Your task to perform on an android device: Open sound settings Image 0: 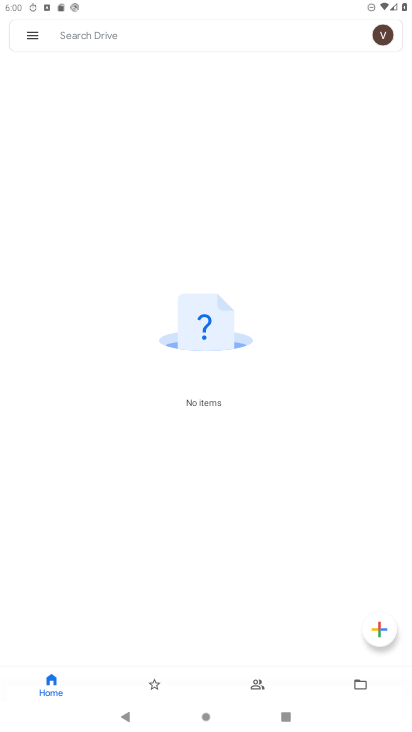
Step 0: press home button
Your task to perform on an android device: Open sound settings Image 1: 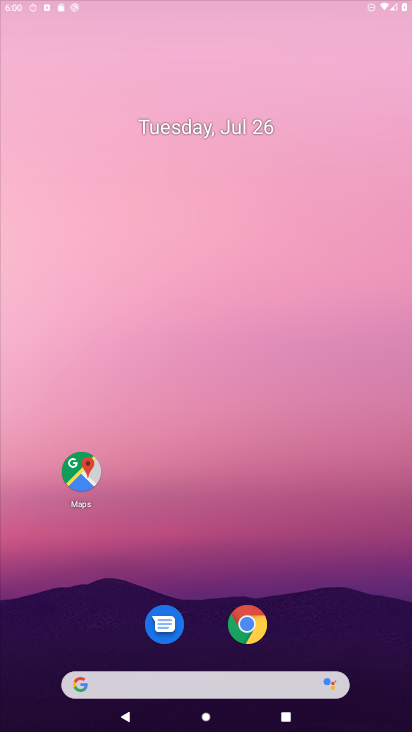
Step 1: drag from (248, 647) to (324, 27)
Your task to perform on an android device: Open sound settings Image 2: 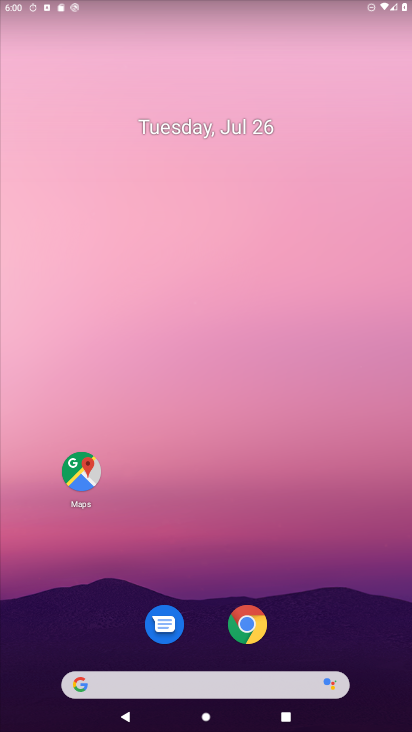
Step 2: drag from (233, 696) to (289, 21)
Your task to perform on an android device: Open sound settings Image 3: 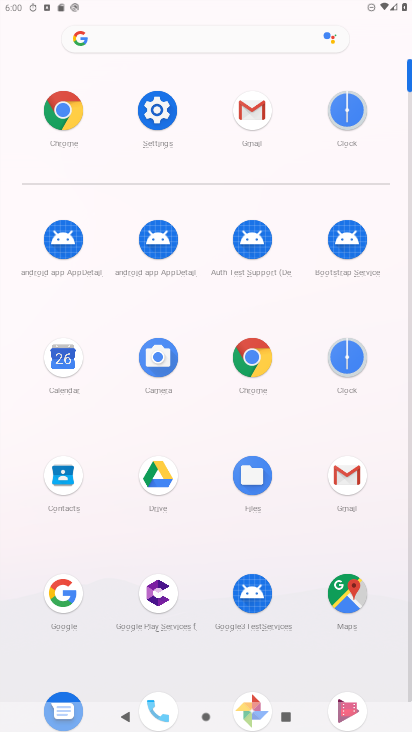
Step 3: click (156, 100)
Your task to perform on an android device: Open sound settings Image 4: 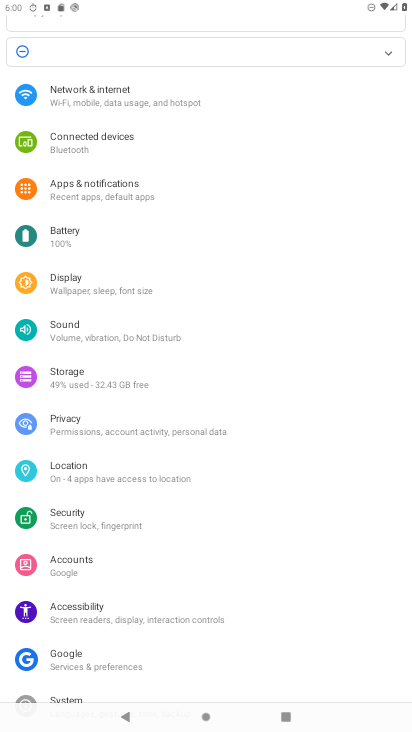
Step 4: click (113, 337)
Your task to perform on an android device: Open sound settings Image 5: 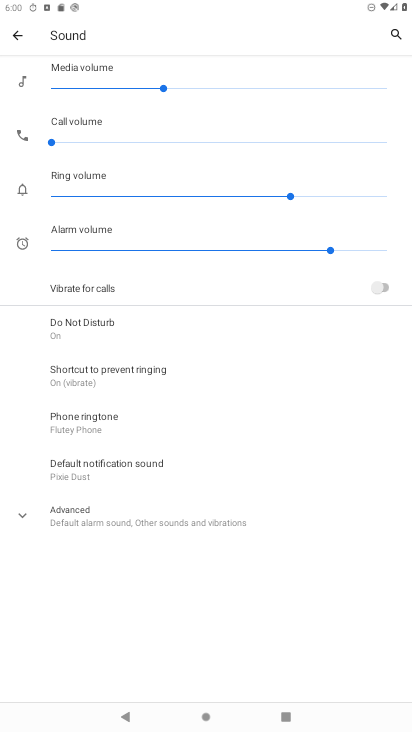
Step 5: task complete